Your task to perform on an android device: set the timer Image 0: 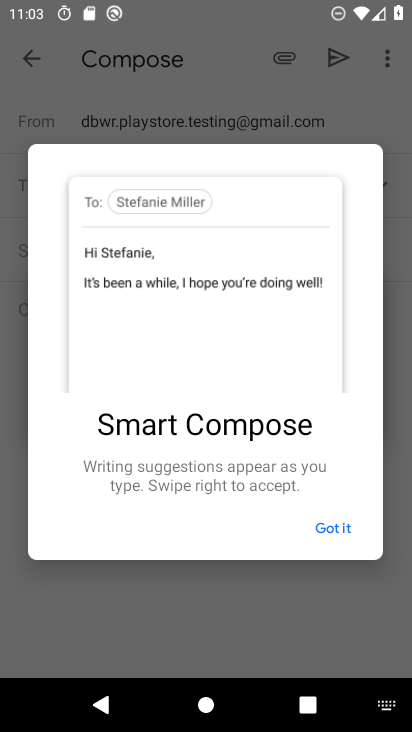
Step 0: press home button
Your task to perform on an android device: set the timer Image 1: 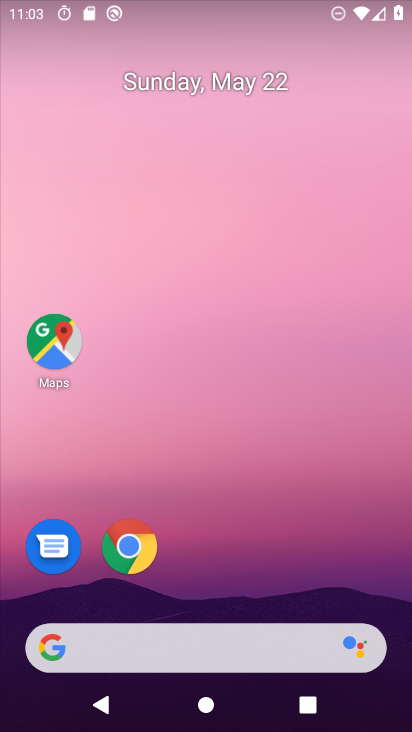
Step 1: drag from (201, 577) to (243, 34)
Your task to perform on an android device: set the timer Image 2: 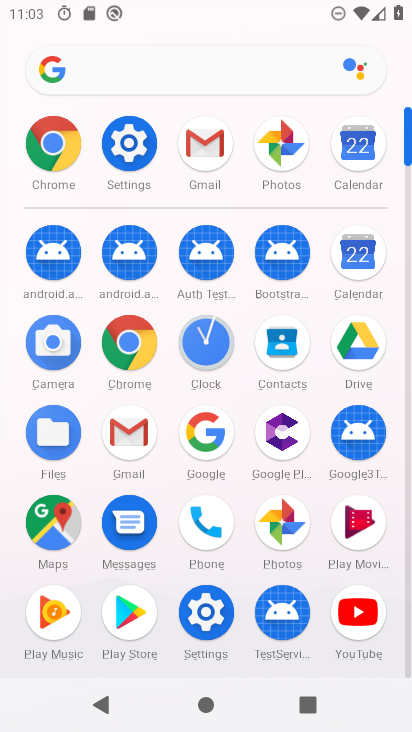
Step 2: click (221, 353)
Your task to perform on an android device: set the timer Image 3: 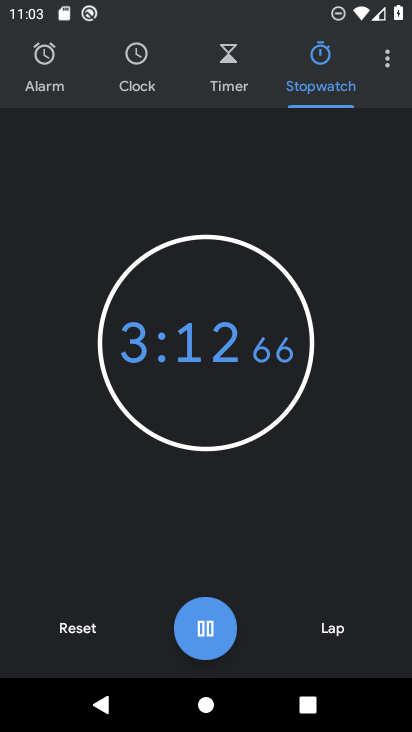
Step 3: click (63, 638)
Your task to perform on an android device: set the timer Image 4: 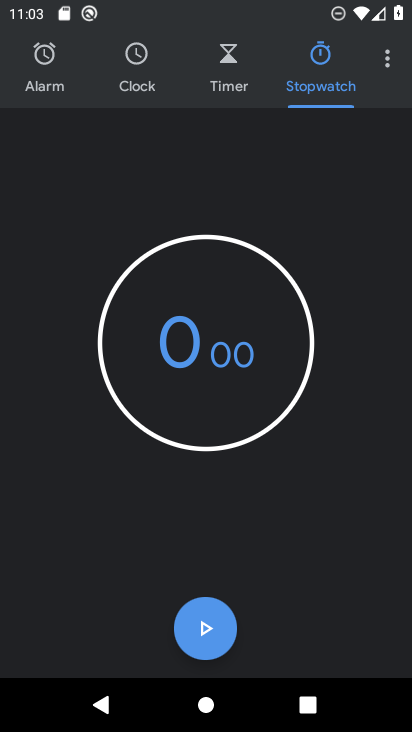
Step 4: click (233, 77)
Your task to perform on an android device: set the timer Image 5: 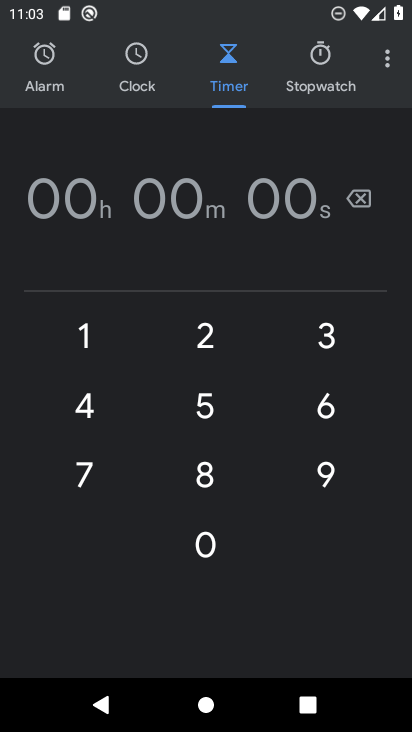
Step 5: click (81, 473)
Your task to perform on an android device: set the timer Image 6: 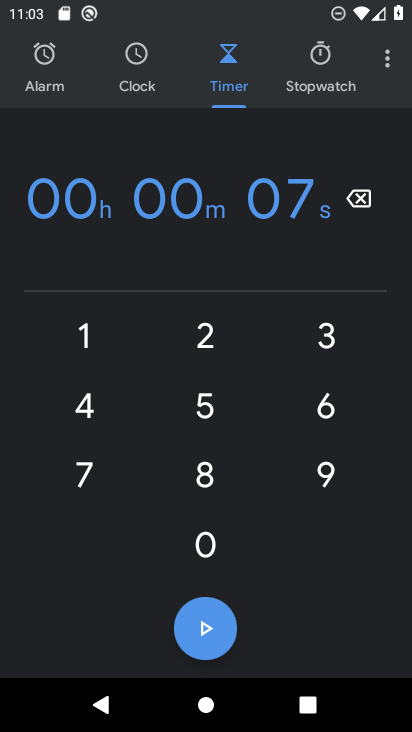
Step 6: click (217, 405)
Your task to perform on an android device: set the timer Image 7: 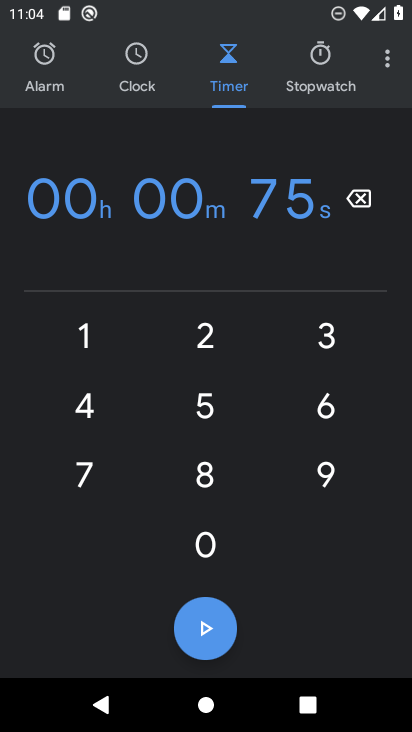
Step 7: click (330, 476)
Your task to perform on an android device: set the timer Image 8: 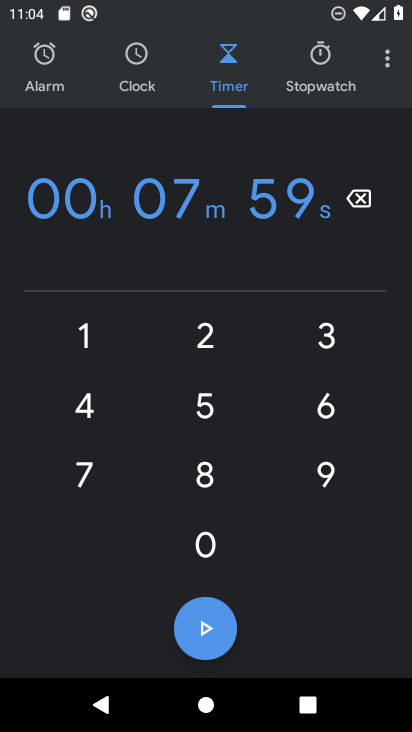
Step 8: click (194, 639)
Your task to perform on an android device: set the timer Image 9: 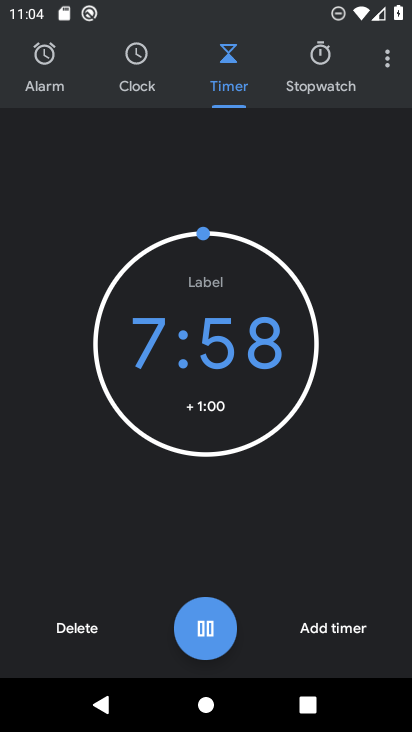
Step 9: task complete